Your task to perform on an android device: uninstall "Messages" Image 0: 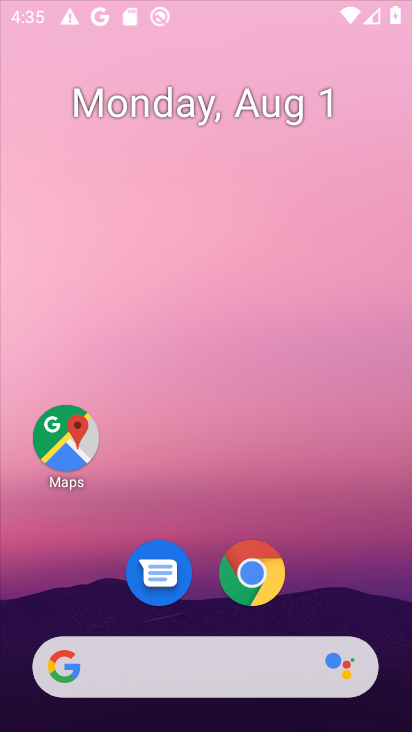
Step 0: click (112, 80)
Your task to perform on an android device: uninstall "Messages" Image 1: 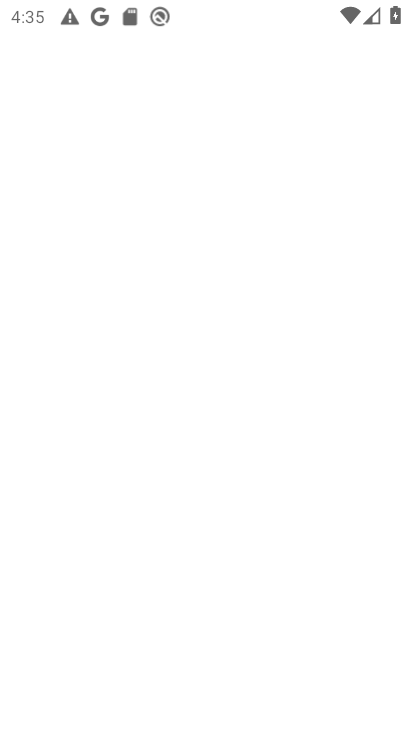
Step 1: click (111, 84)
Your task to perform on an android device: uninstall "Messages" Image 2: 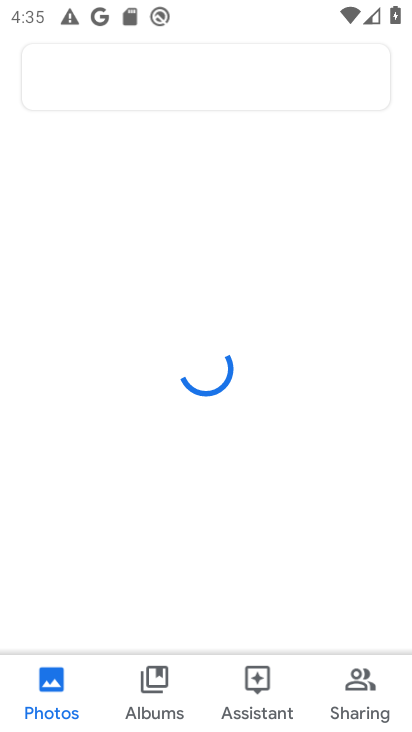
Step 2: click (123, 97)
Your task to perform on an android device: uninstall "Messages" Image 3: 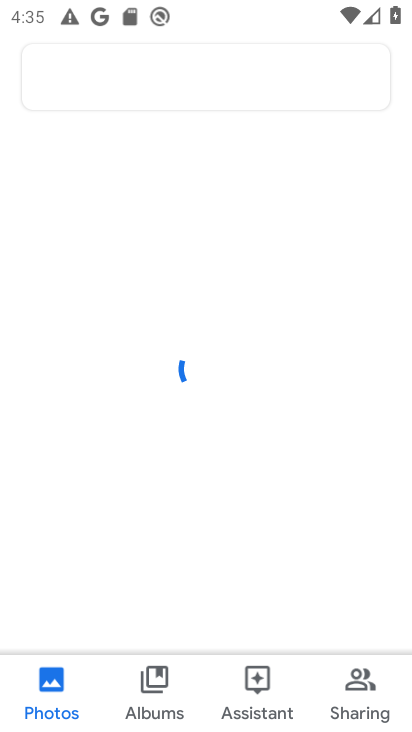
Step 3: press back button
Your task to perform on an android device: uninstall "Messages" Image 4: 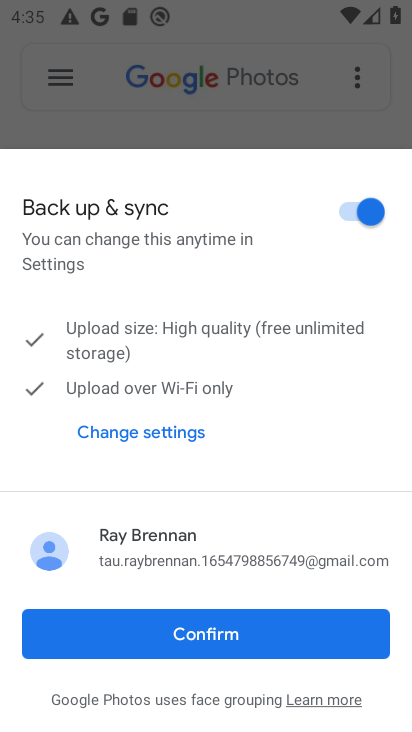
Step 4: press back button
Your task to perform on an android device: uninstall "Messages" Image 5: 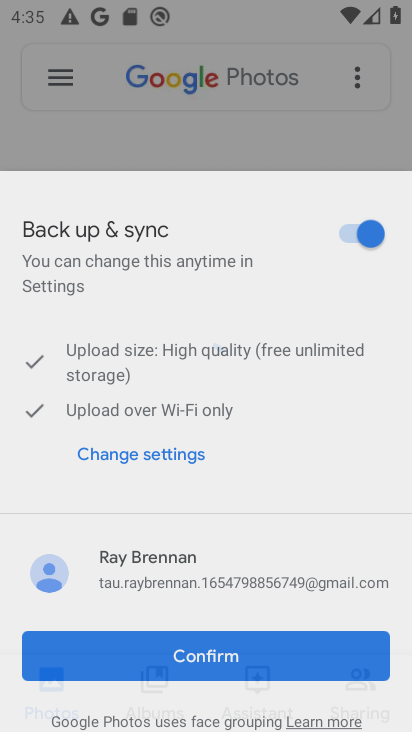
Step 5: press back button
Your task to perform on an android device: uninstall "Messages" Image 6: 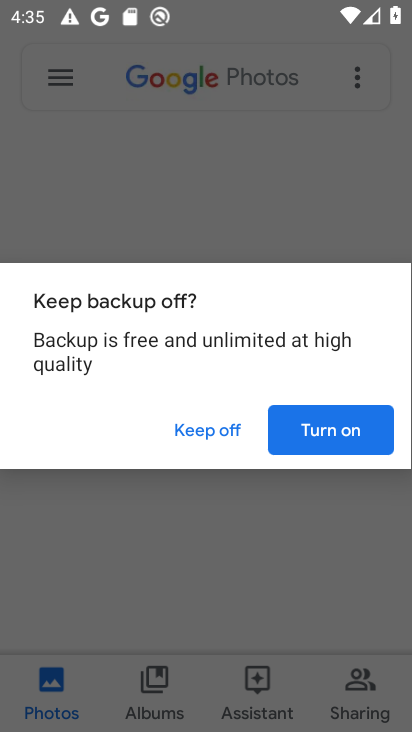
Step 6: press back button
Your task to perform on an android device: uninstall "Messages" Image 7: 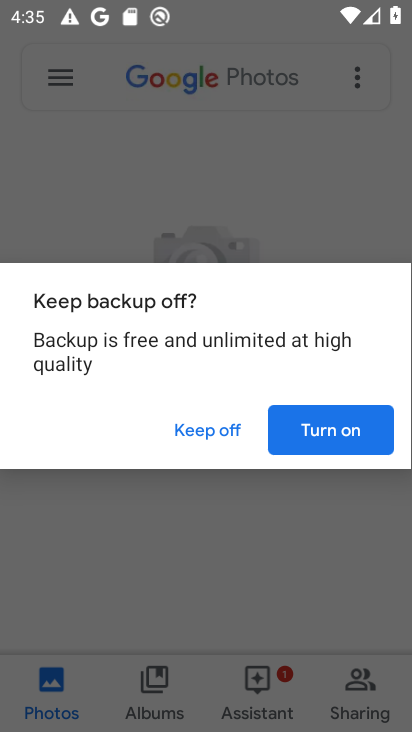
Step 7: click (193, 424)
Your task to perform on an android device: uninstall "Messages" Image 8: 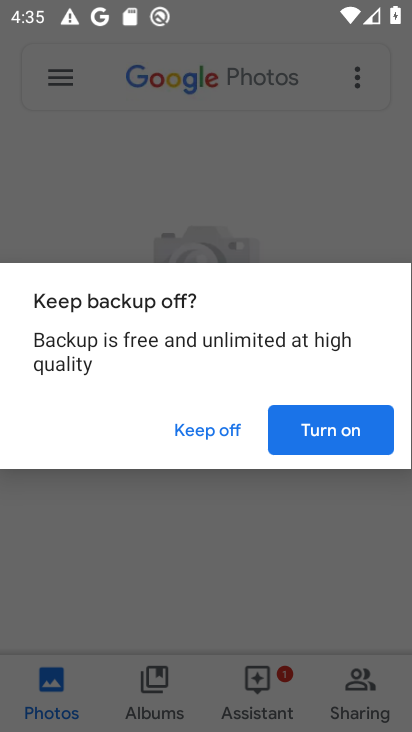
Step 8: click (192, 422)
Your task to perform on an android device: uninstall "Messages" Image 9: 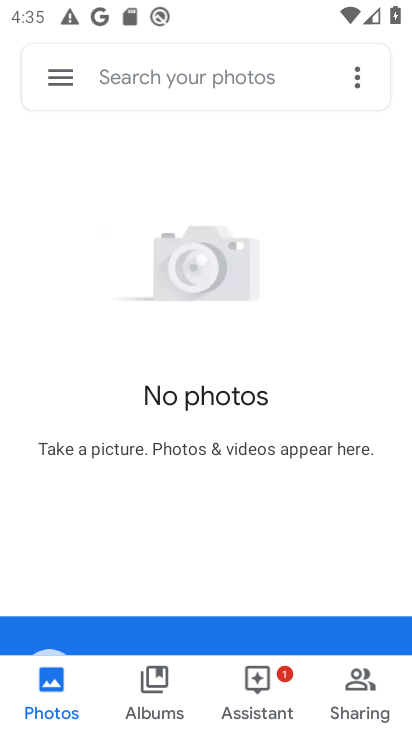
Step 9: press back button
Your task to perform on an android device: uninstall "Messages" Image 10: 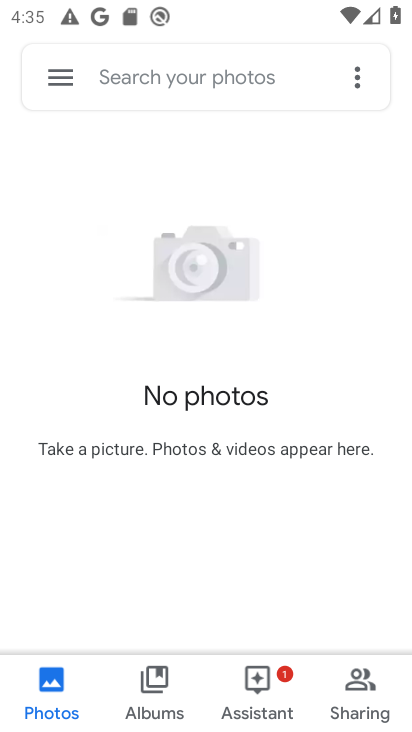
Step 10: press back button
Your task to perform on an android device: uninstall "Messages" Image 11: 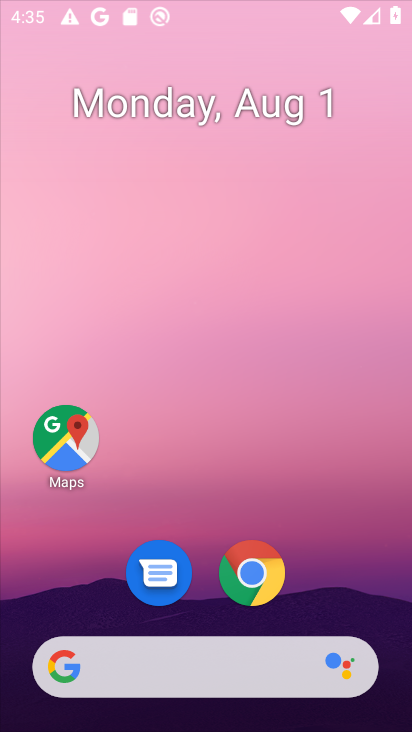
Step 11: press back button
Your task to perform on an android device: uninstall "Messages" Image 12: 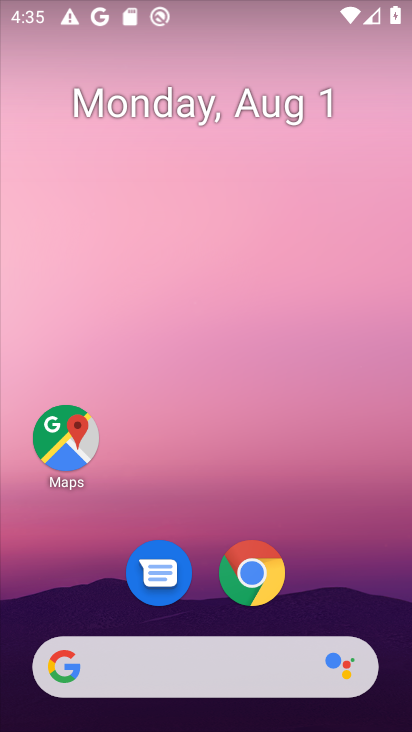
Step 12: drag from (239, 560) to (172, 144)
Your task to perform on an android device: uninstall "Messages" Image 13: 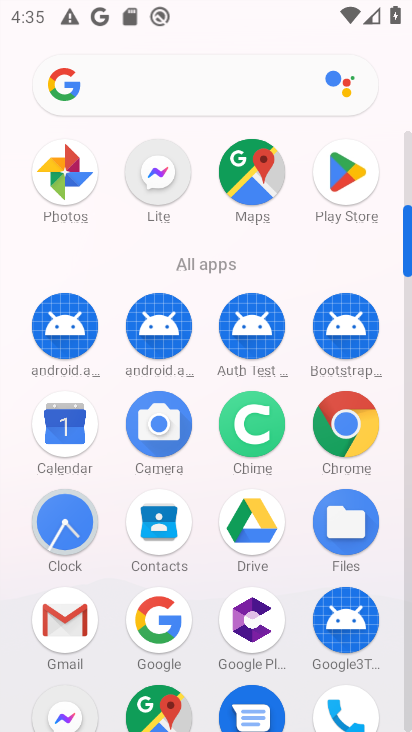
Step 13: drag from (218, 351) to (193, 165)
Your task to perform on an android device: uninstall "Messages" Image 14: 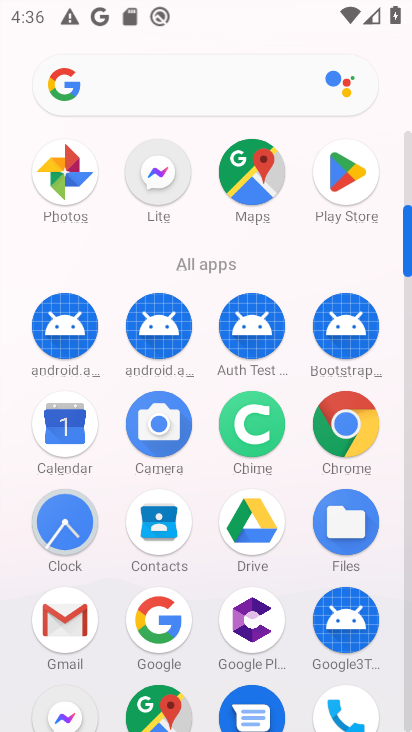
Step 14: click (354, 191)
Your task to perform on an android device: uninstall "Messages" Image 15: 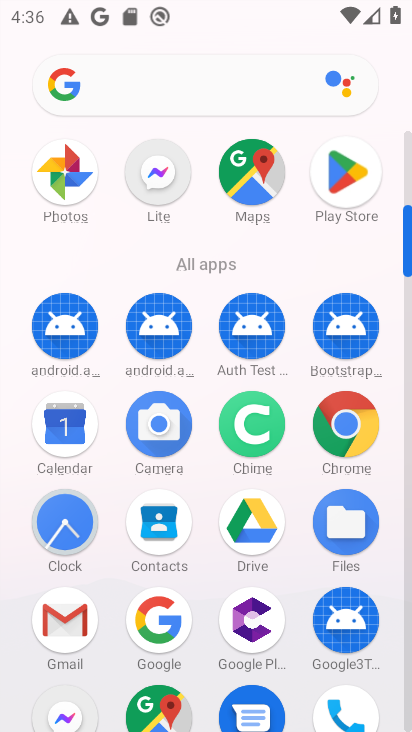
Step 15: click (354, 191)
Your task to perform on an android device: uninstall "Messages" Image 16: 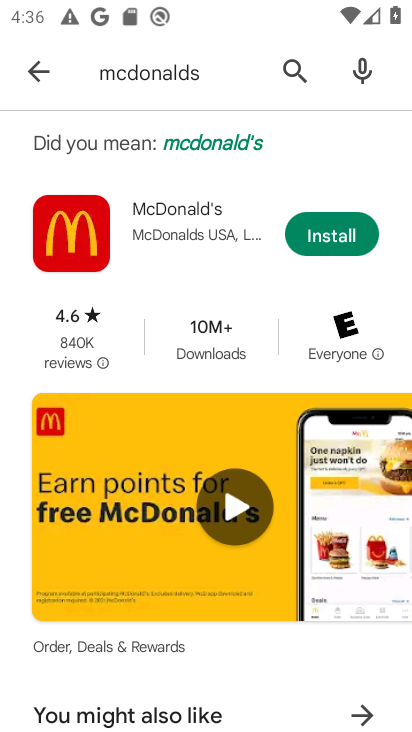
Step 16: click (35, 70)
Your task to perform on an android device: uninstall "Messages" Image 17: 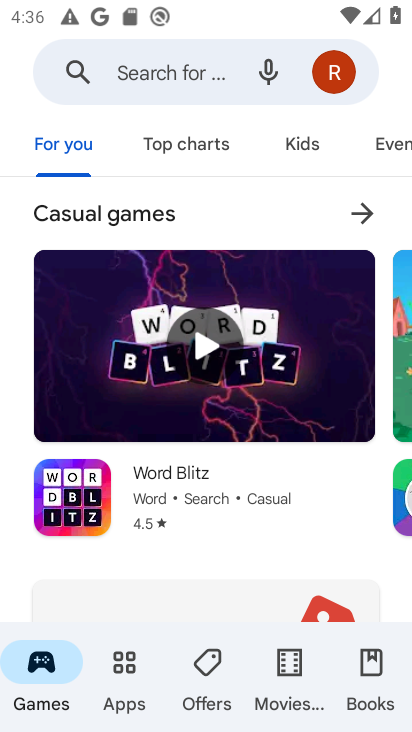
Step 17: click (160, 67)
Your task to perform on an android device: uninstall "Messages" Image 18: 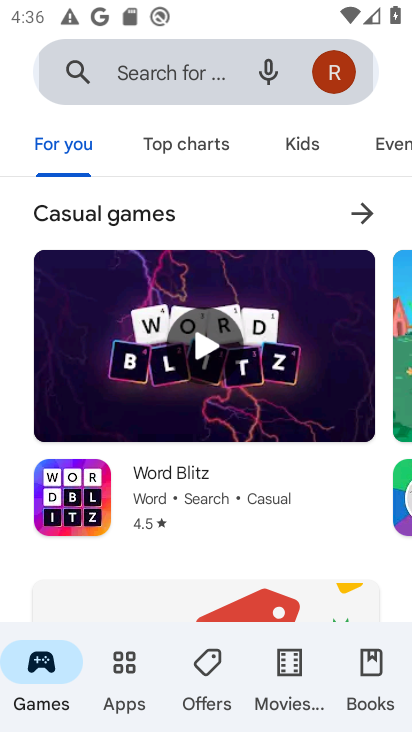
Step 18: click (161, 66)
Your task to perform on an android device: uninstall "Messages" Image 19: 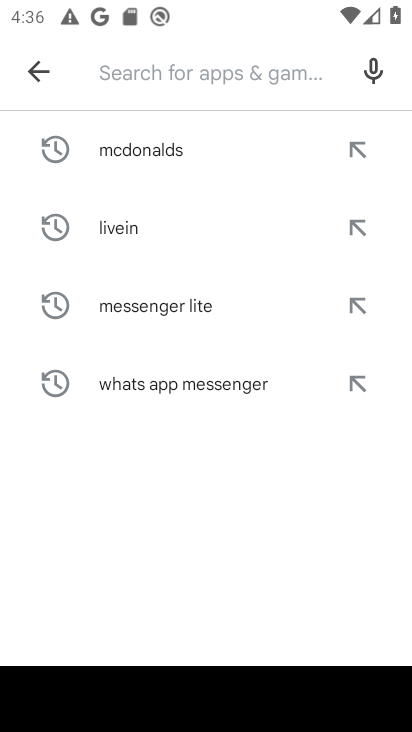
Step 19: type "messages"
Your task to perform on an android device: uninstall "Messages" Image 20: 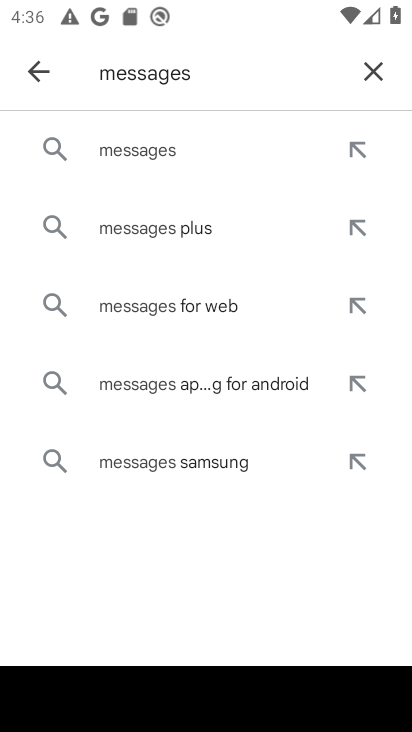
Step 20: click (138, 160)
Your task to perform on an android device: uninstall "Messages" Image 21: 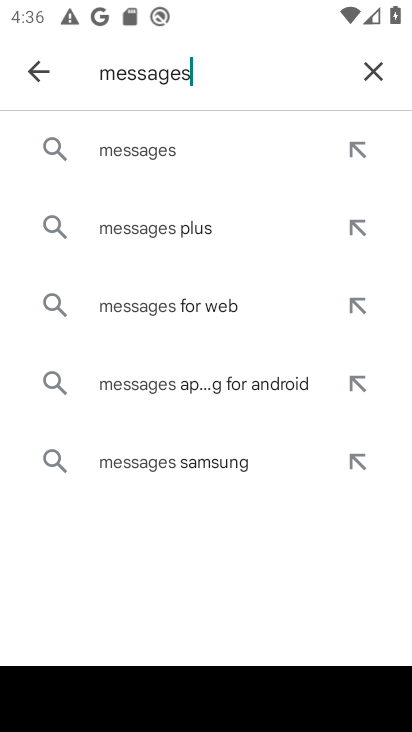
Step 21: click (138, 160)
Your task to perform on an android device: uninstall "Messages" Image 22: 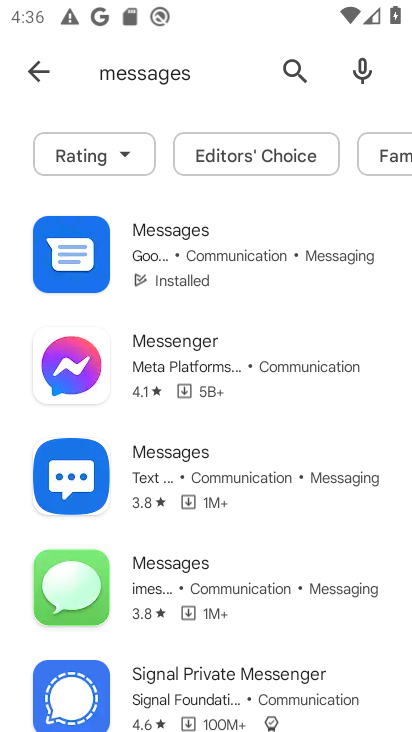
Step 22: click (164, 83)
Your task to perform on an android device: uninstall "Messages" Image 23: 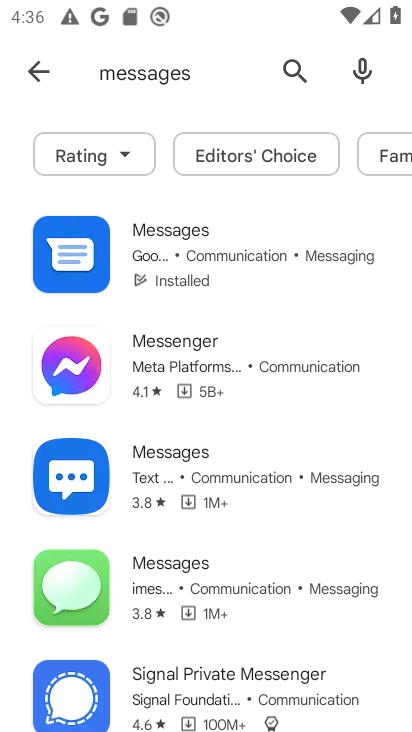
Step 23: click (164, 83)
Your task to perform on an android device: uninstall "Messages" Image 24: 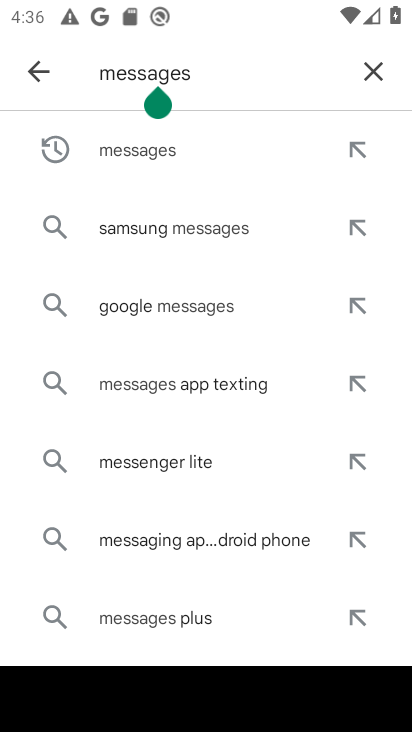
Step 24: click (139, 160)
Your task to perform on an android device: uninstall "Messages" Image 25: 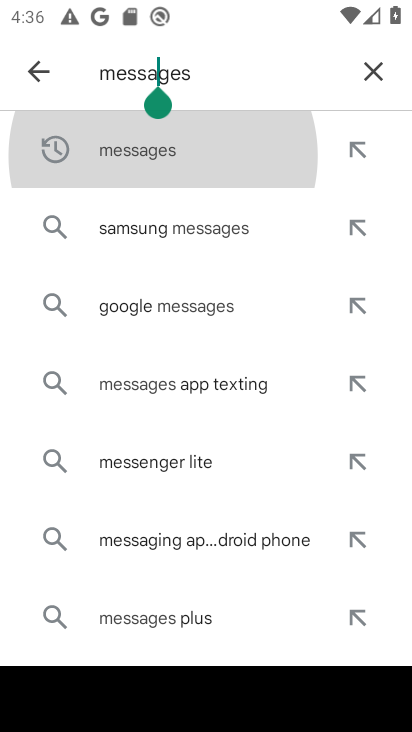
Step 25: click (139, 160)
Your task to perform on an android device: uninstall "Messages" Image 26: 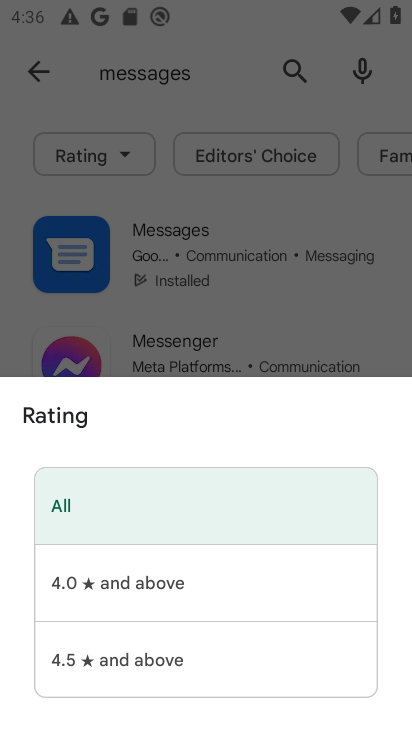
Step 26: click (300, 298)
Your task to perform on an android device: uninstall "Messages" Image 27: 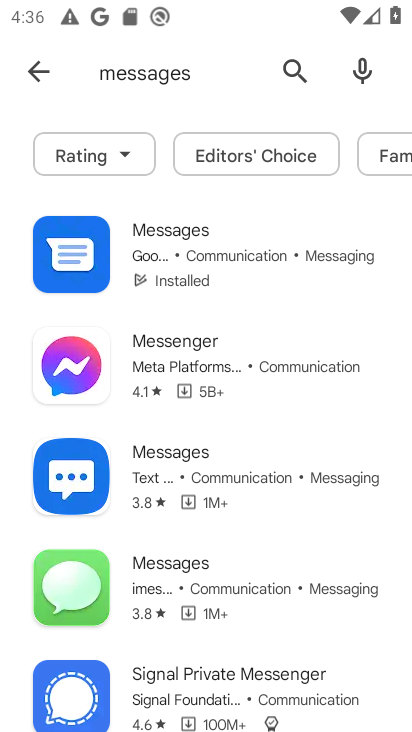
Step 27: task complete